Your task to perform on an android device: Search for the best selling vase on Crate & Barrel Image 0: 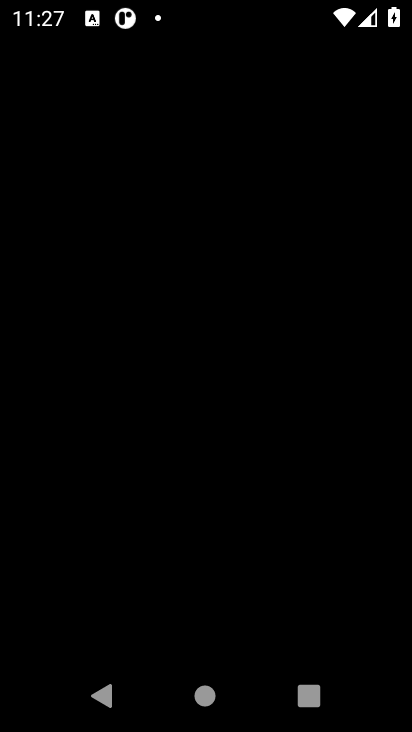
Step 0: press home button
Your task to perform on an android device: Search for the best selling vase on Crate & Barrel Image 1: 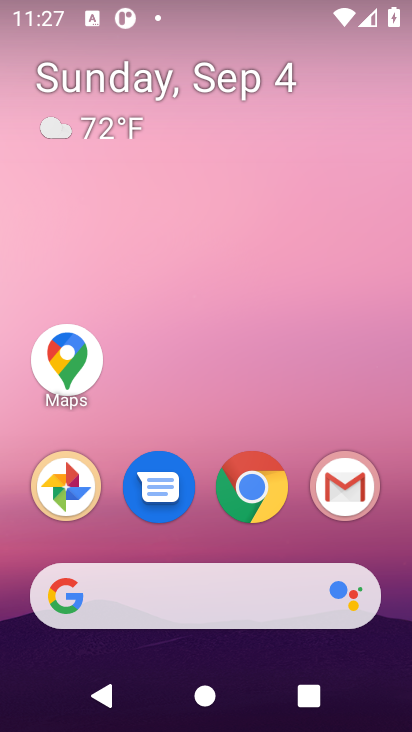
Step 1: drag from (349, 705) to (411, 713)
Your task to perform on an android device: Search for the best selling vase on Crate & Barrel Image 2: 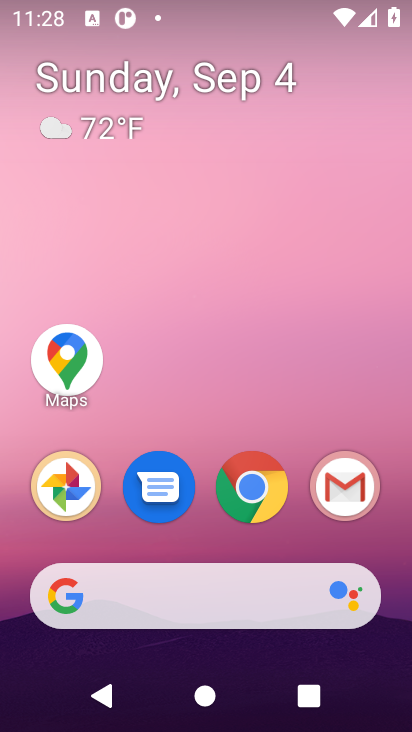
Step 2: click (278, 485)
Your task to perform on an android device: Search for the best selling vase on Crate & Barrel Image 3: 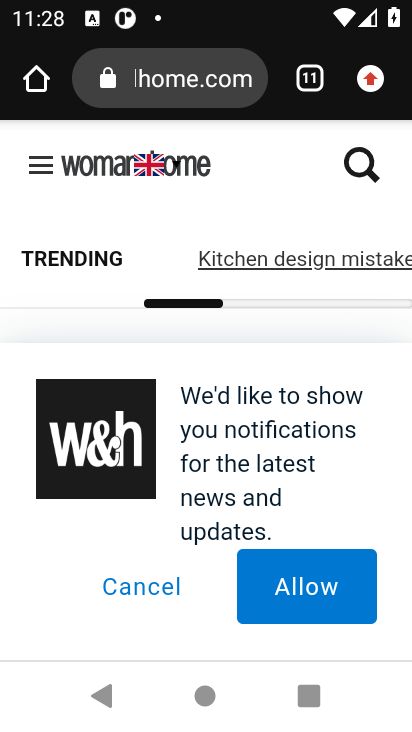
Step 3: click (225, 90)
Your task to perform on an android device: Search for the best selling vase on Crate & Barrel Image 4: 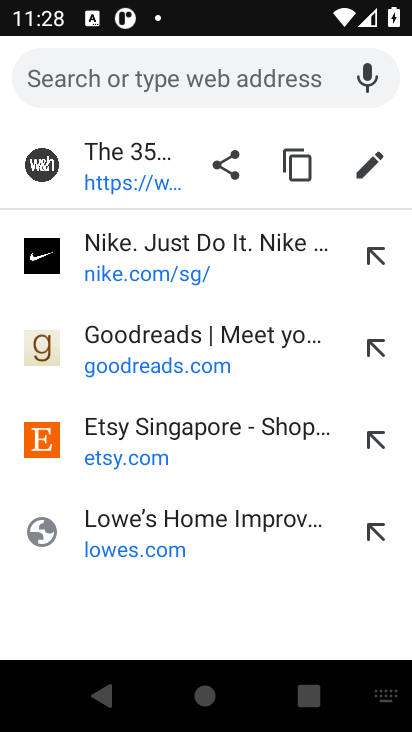
Step 4: type " best selling vase on Crate & Barrel"
Your task to perform on an android device: Search for the best selling vase on Crate & Barrel Image 5: 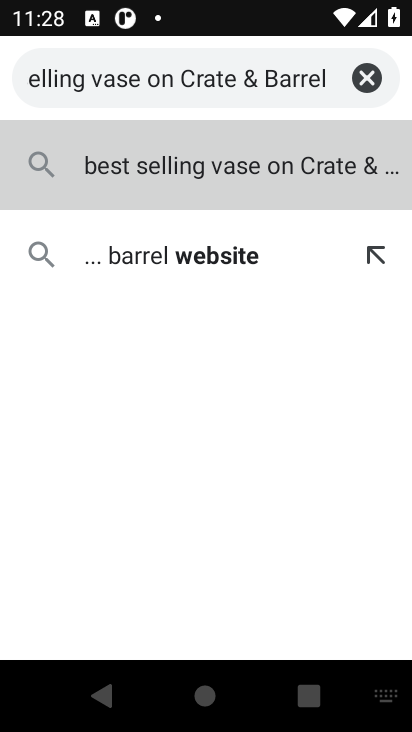
Step 5: click (314, 167)
Your task to perform on an android device: Search for the best selling vase on Crate & Barrel Image 6: 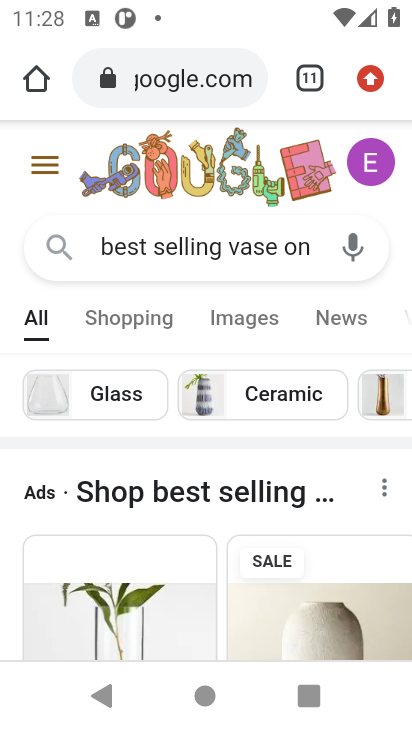
Step 6: task complete